Your task to perform on an android device: Open battery settings Image 0: 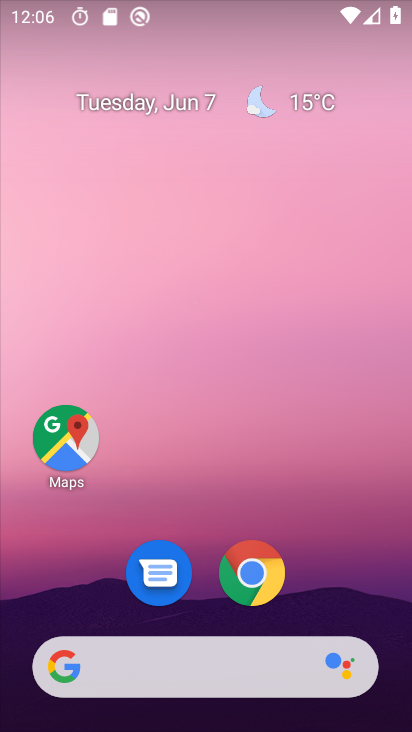
Step 0: drag from (205, 575) to (198, 202)
Your task to perform on an android device: Open battery settings Image 1: 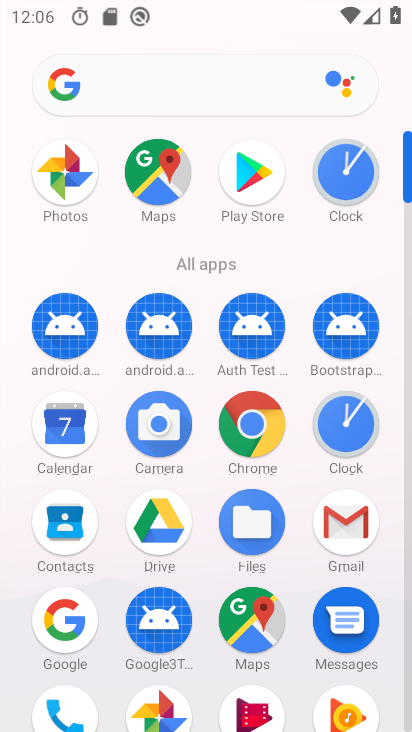
Step 1: drag from (113, 588) to (117, 366)
Your task to perform on an android device: Open battery settings Image 2: 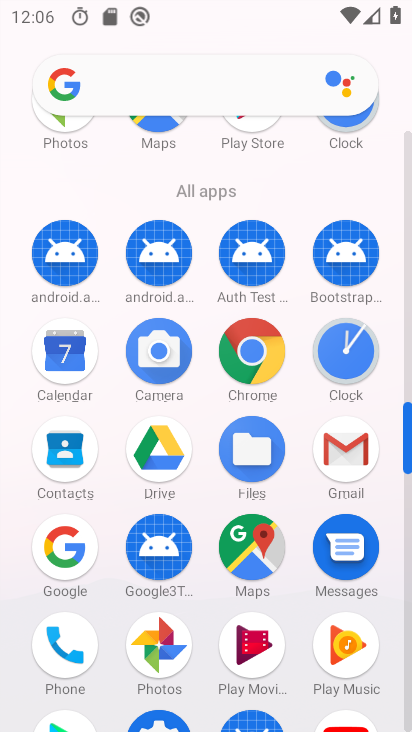
Step 2: drag from (166, 610) to (183, 378)
Your task to perform on an android device: Open battery settings Image 3: 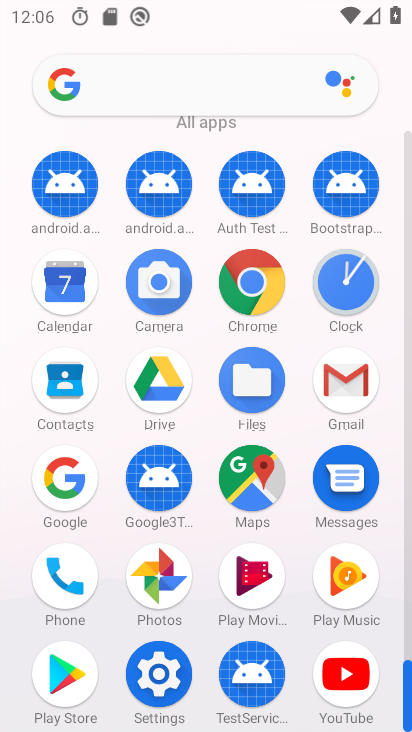
Step 3: click (166, 662)
Your task to perform on an android device: Open battery settings Image 4: 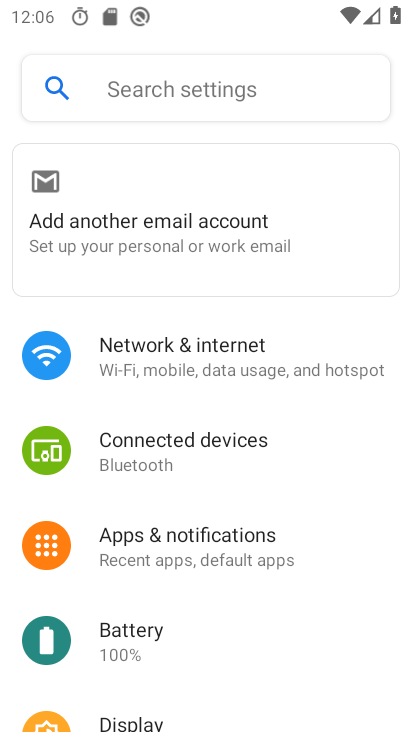
Step 4: drag from (257, 605) to (288, 364)
Your task to perform on an android device: Open battery settings Image 5: 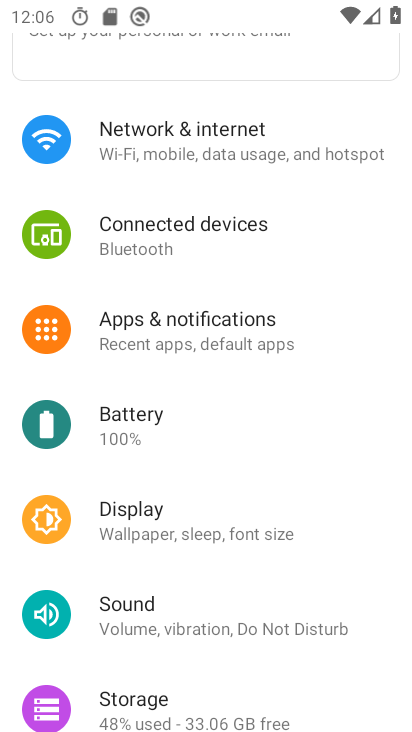
Step 5: click (245, 443)
Your task to perform on an android device: Open battery settings Image 6: 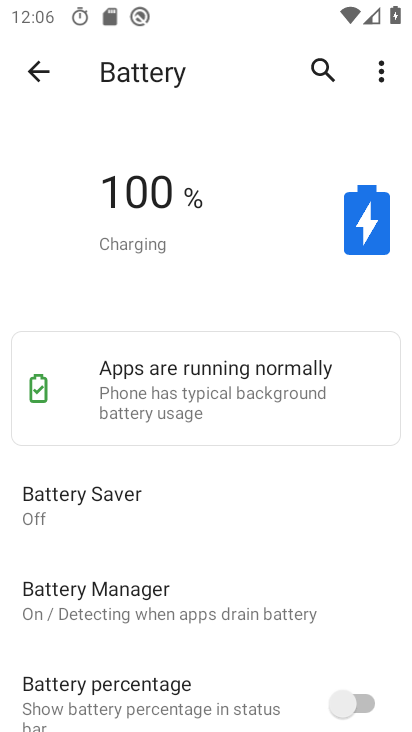
Step 6: task complete